Your task to perform on an android device: turn notification dots on Image 0: 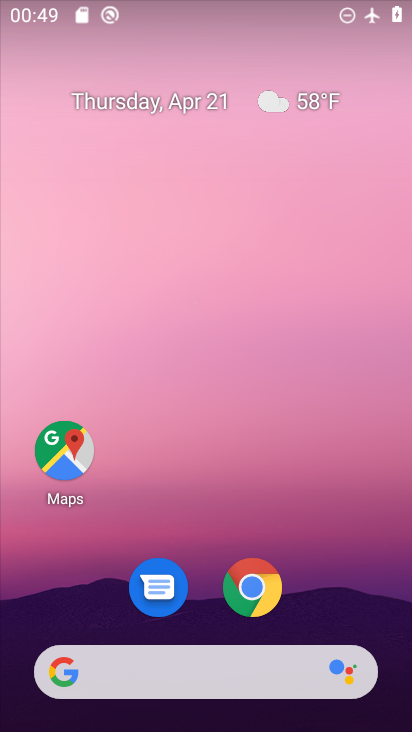
Step 0: drag from (201, 587) to (242, 36)
Your task to perform on an android device: turn notification dots on Image 1: 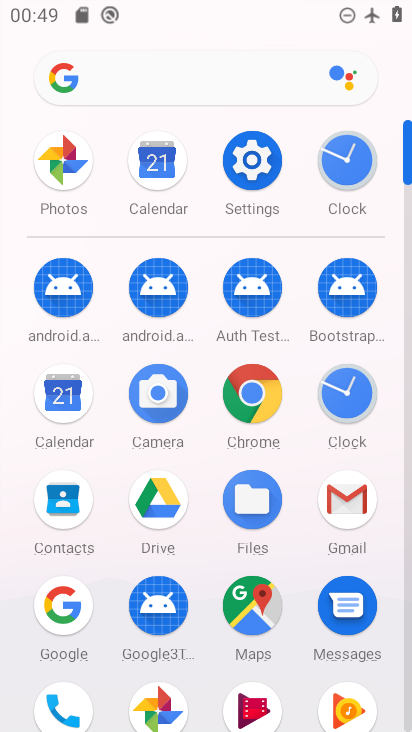
Step 1: click (239, 187)
Your task to perform on an android device: turn notification dots on Image 2: 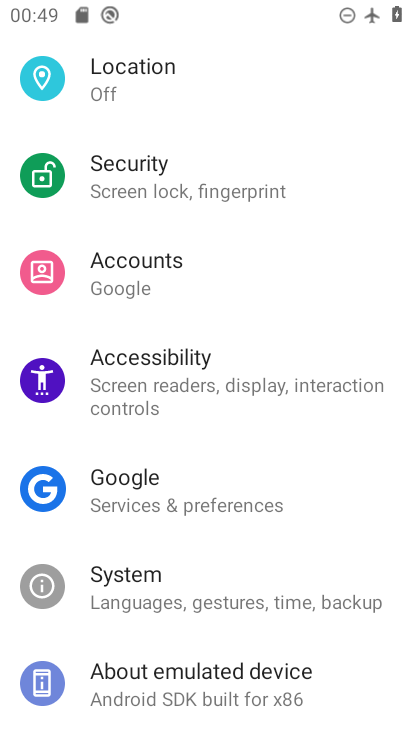
Step 2: drag from (190, 148) to (58, 726)
Your task to perform on an android device: turn notification dots on Image 3: 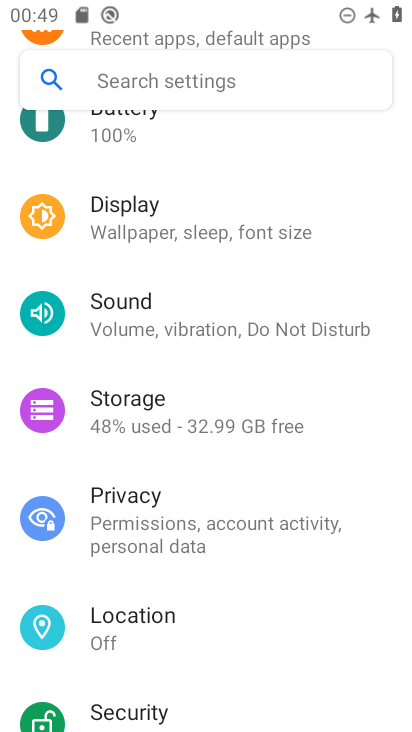
Step 3: drag from (155, 320) to (80, 688)
Your task to perform on an android device: turn notification dots on Image 4: 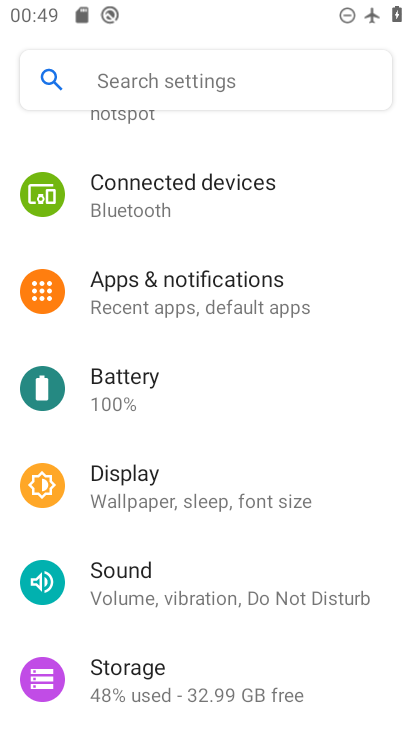
Step 4: click (185, 289)
Your task to perform on an android device: turn notification dots on Image 5: 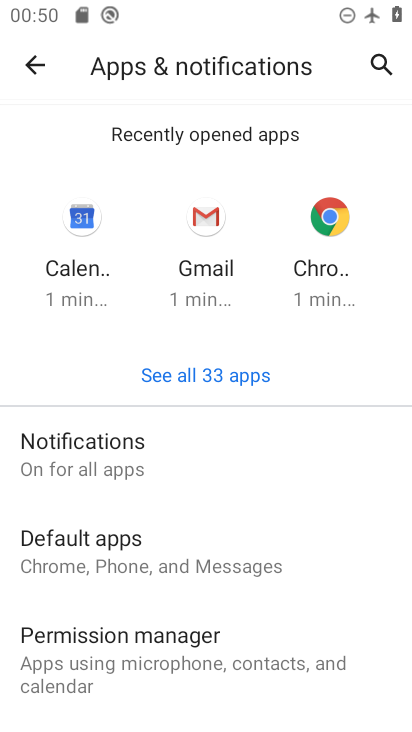
Step 5: click (112, 458)
Your task to perform on an android device: turn notification dots on Image 6: 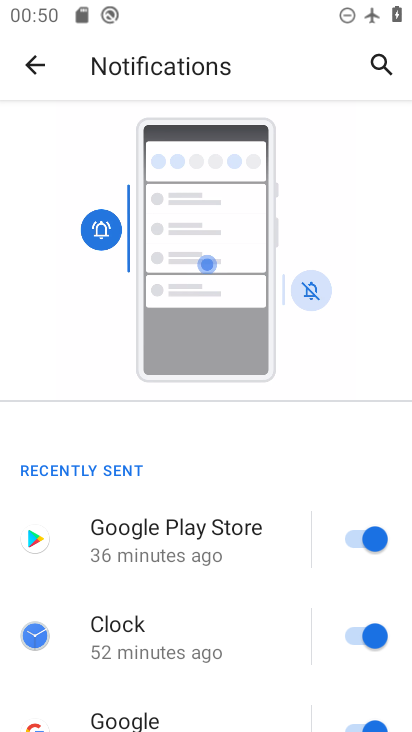
Step 6: drag from (158, 627) to (172, 16)
Your task to perform on an android device: turn notification dots on Image 7: 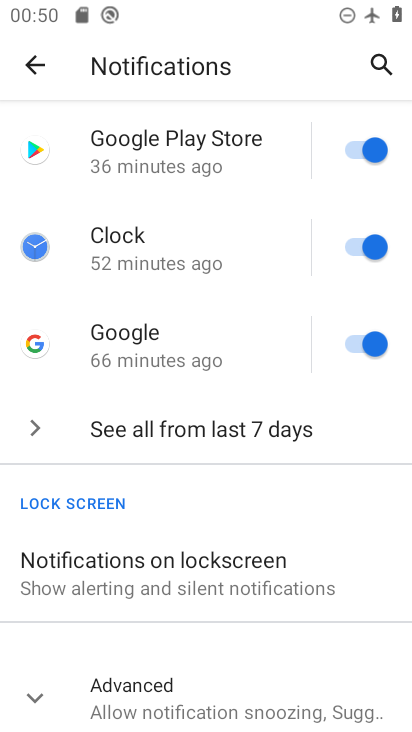
Step 7: click (144, 580)
Your task to perform on an android device: turn notification dots on Image 8: 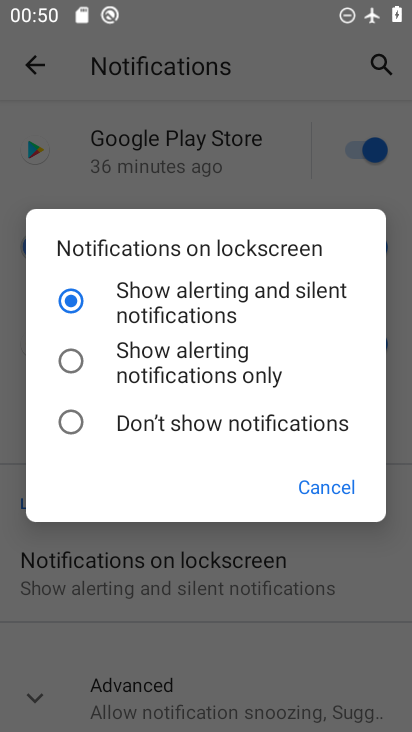
Step 8: click (304, 488)
Your task to perform on an android device: turn notification dots on Image 9: 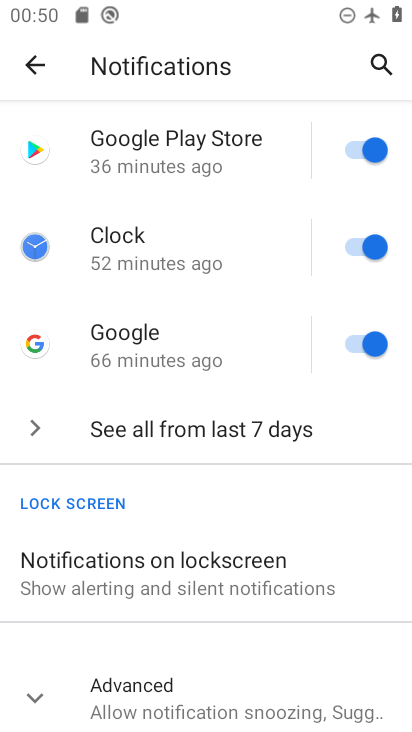
Step 9: click (180, 685)
Your task to perform on an android device: turn notification dots on Image 10: 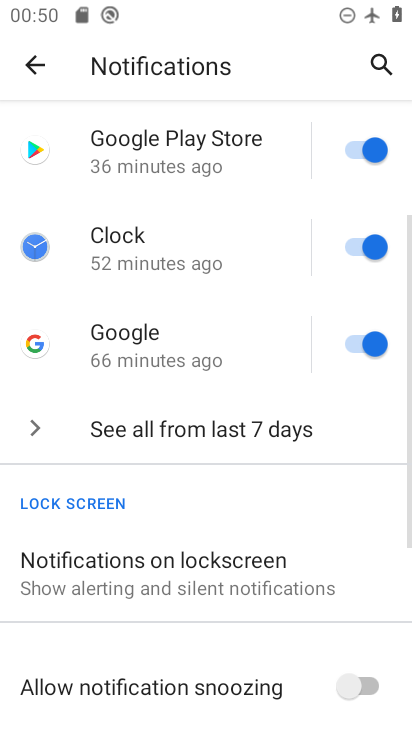
Step 10: drag from (163, 669) to (289, 155)
Your task to perform on an android device: turn notification dots on Image 11: 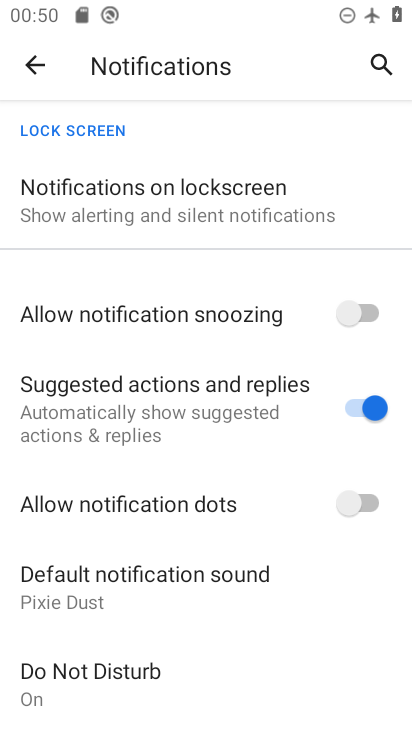
Step 11: click (375, 503)
Your task to perform on an android device: turn notification dots on Image 12: 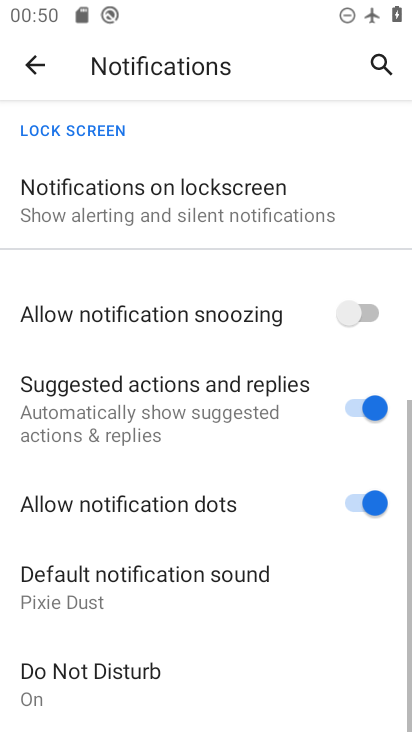
Step 12: task complete